Your task to perform on an android device: turn on bluetooth scan Image 0: 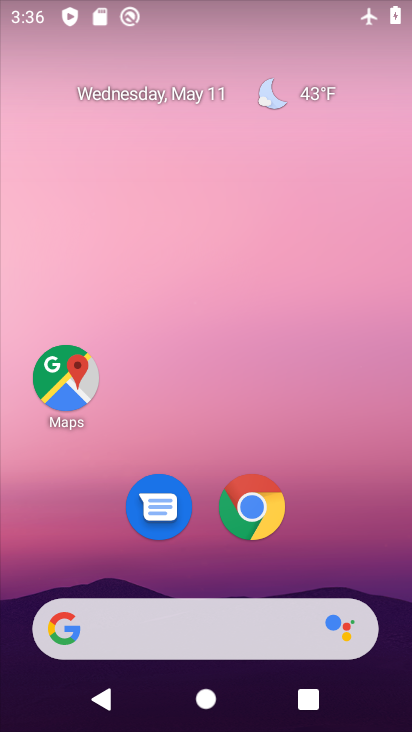
Step 0: drag from (398, 638) to (265, 99)
Your task to perform on an android device: turn on bluetooth scan Image 1: 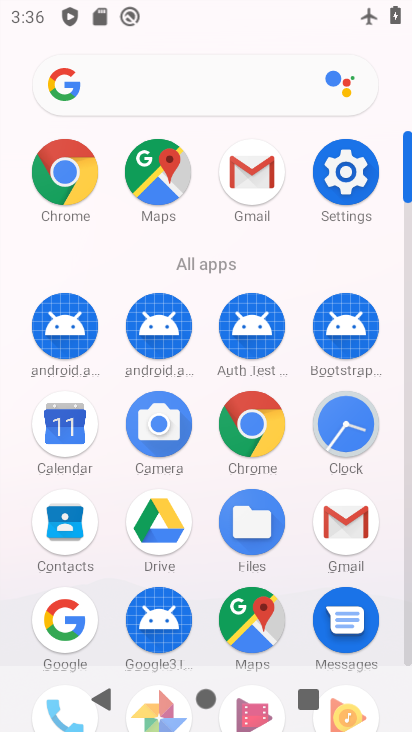
Step 1: click (408, 649)
Your task to perform on an android device: turn on bluetooth scan Image 2: 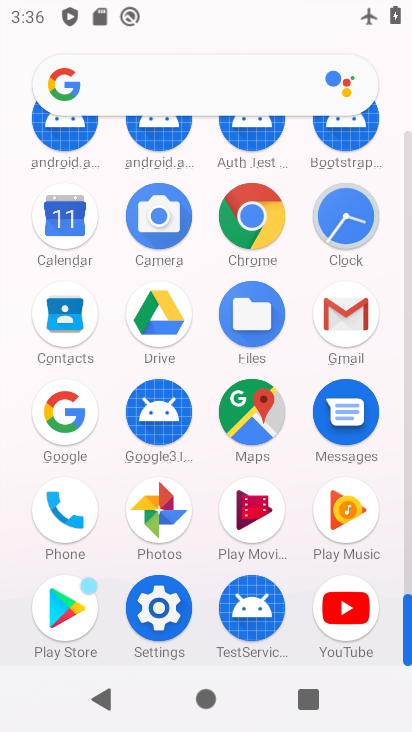
Step 2: click (160, 605)
Your task to perform on an android device: turn on bluetooth scan Image 3: 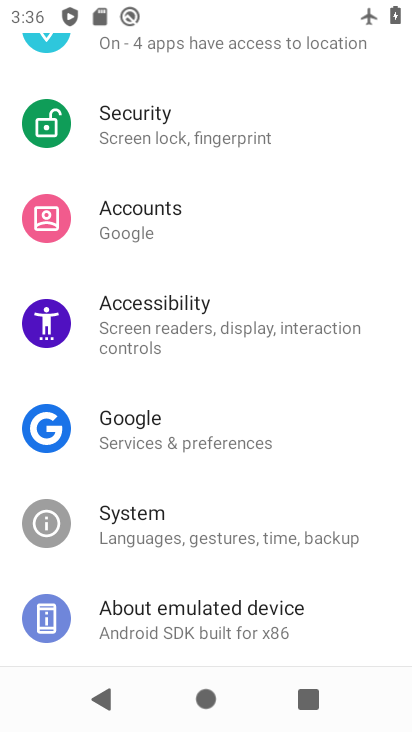
Step 3: drag from (354, 192) to (362, 546)
Your task to perform on an android device: turn on bluetooth scan Image 4: 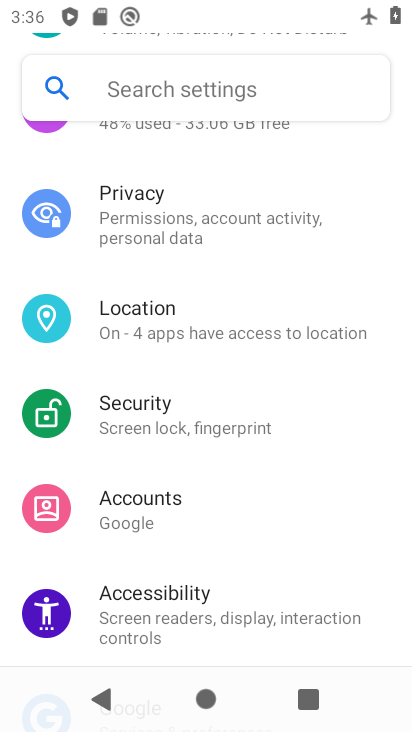
Step 4: drag from (334, 183) to (369, 493)
Your task to perform on an android device: turn on bluetooth scan Image 5: 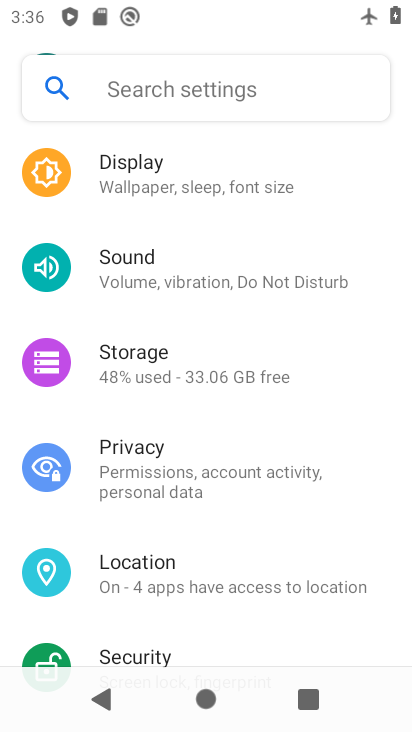
Step 5: drag from (342, 183) to (331, 453)
Your task to perform on an android device: turn on bluetooth scan Image 6: 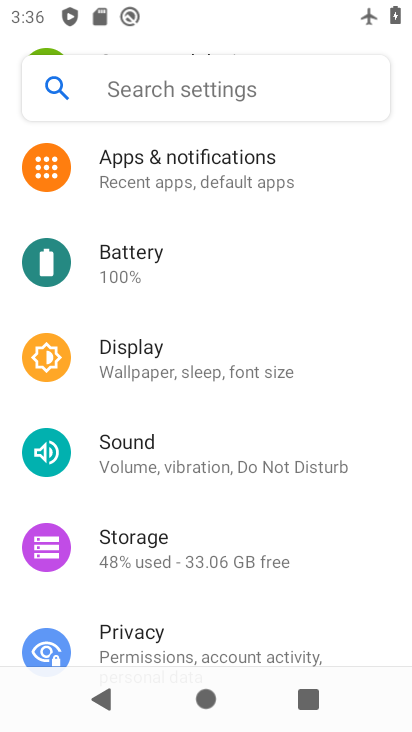
Step 6: drag from (342, 171) to (322, 123)
Your task to perform on an android device: turn on bluetooth scan Image 7: 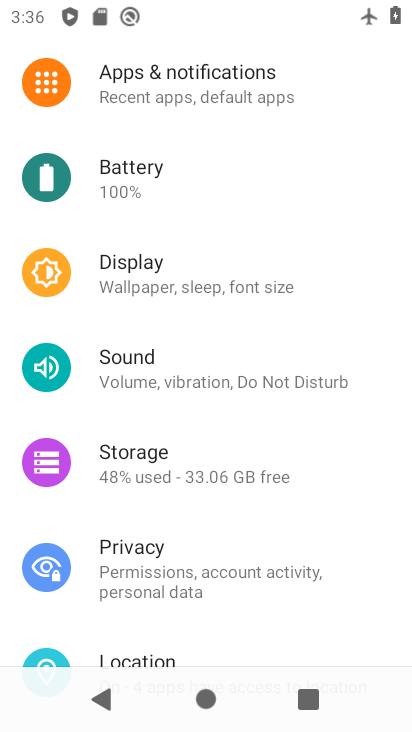
Step 7: drag from (261, 520) to (267, 222)
Your task to perform on an android device: turn on bluetooth scan Image 8: 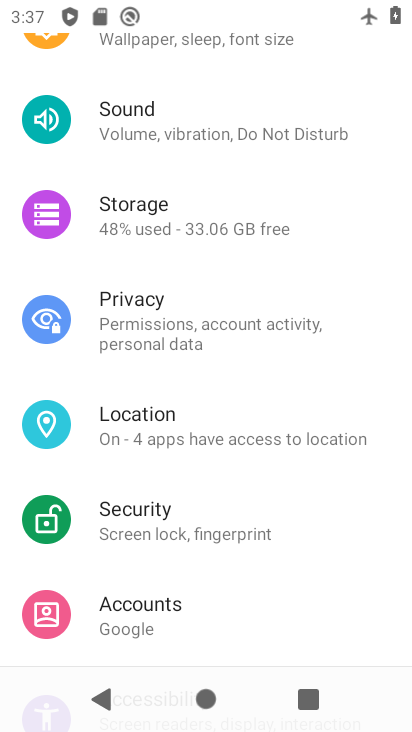
Step 8: click (160, 415)
Your task to perform on an android device: turn on bluetooth scan Image 9: 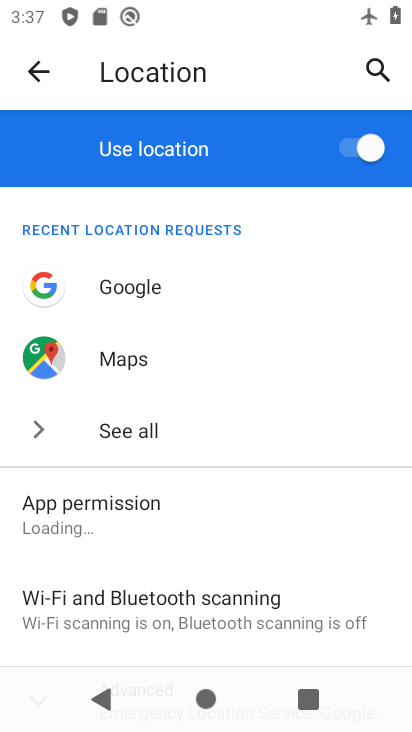
Step 9: drag from (271, 572) to (276, 132)
Your task to perform on an android device: turn on bluetooth scan Image 10: 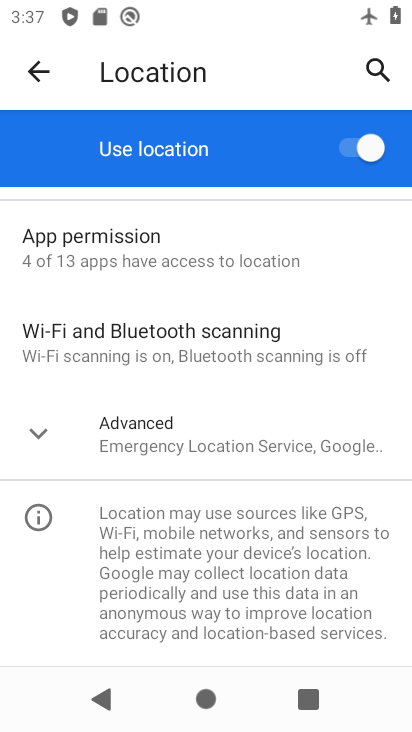
Step 10: click (80, 328)
Your task to perform on an android device: turn on bluetooth scan Image 11: 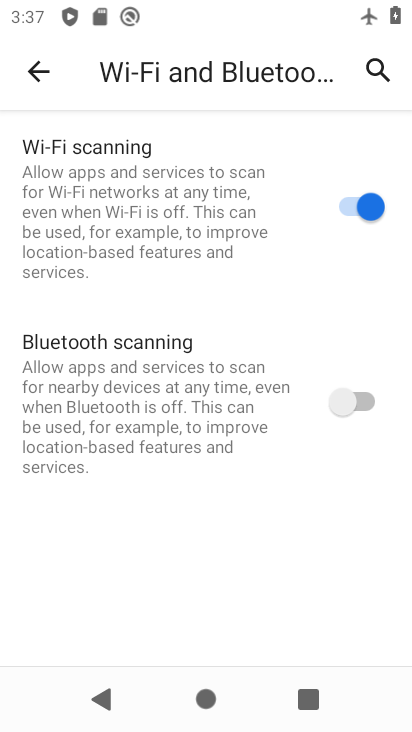
Step 11: click (366, 401)
Your task to perform on an android device: turn on bluetooth scan Image 12: 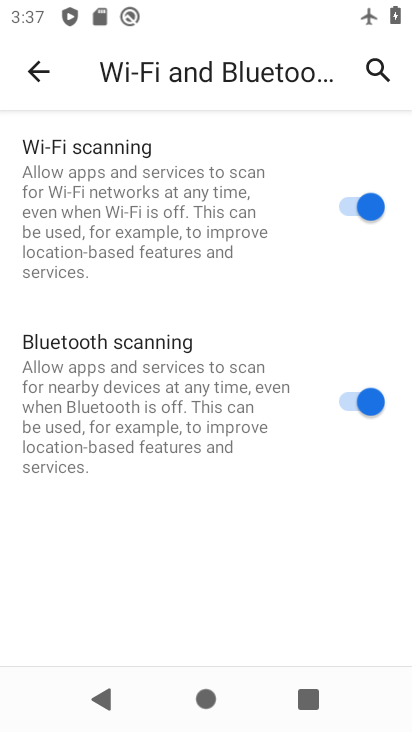
Step 12: task complete